Your task to perform on an android device: toggle sleep mode Image 0: 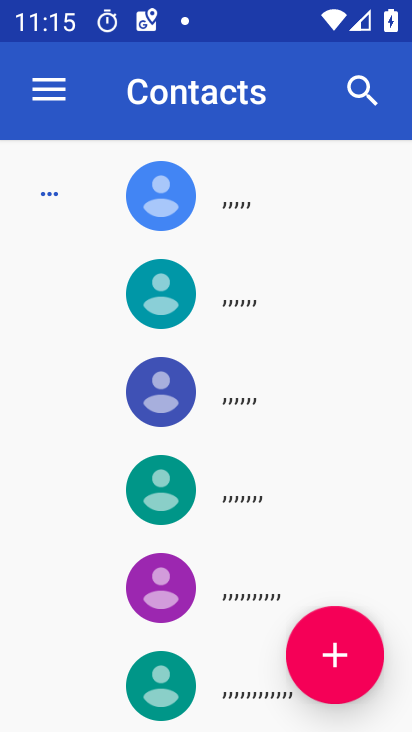
Step 0: press home button
Your task to perform on an android device: toggle sleep mode Image 1: 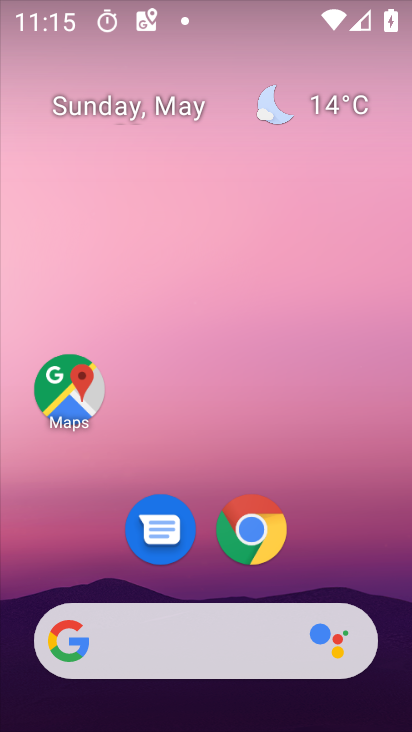
Step 1: drag from (171, 619) to (172, 57)
Your task to perform on an android device: toggle sleep mode Image 2: 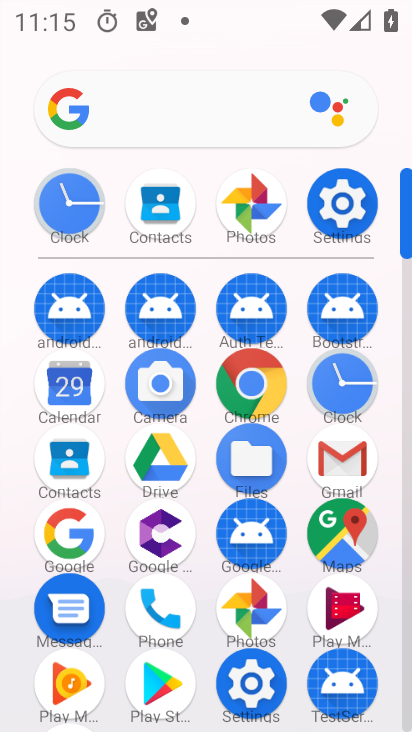
Step 2: click (336, 223)
Your task to perform on an android device: toggle sleep mode Image 3: 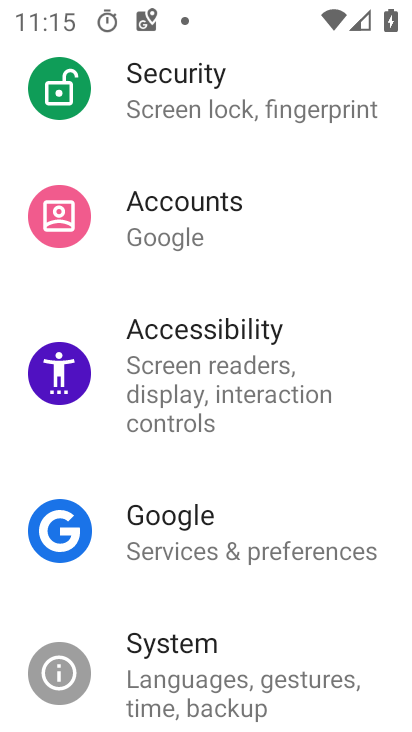
Step 3: drag from (231, 248) to (81, 681)
Your task to perform on an android device: toggle sleep mode Image 4: 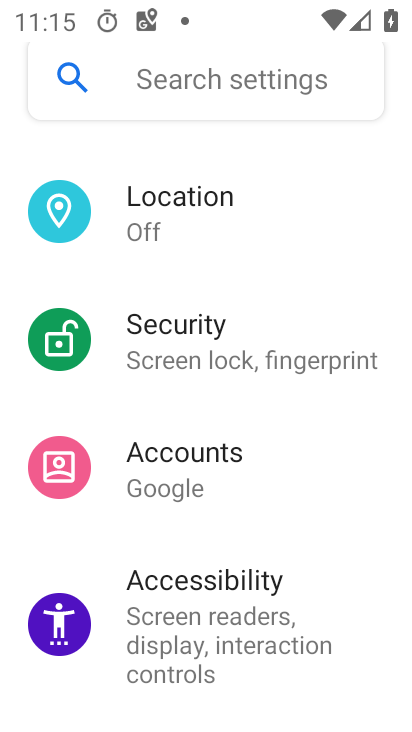
Step 4: drag from (228, 251) to (72, 704)
Your task to perform on an android device: toggle sleep mode Image 5: 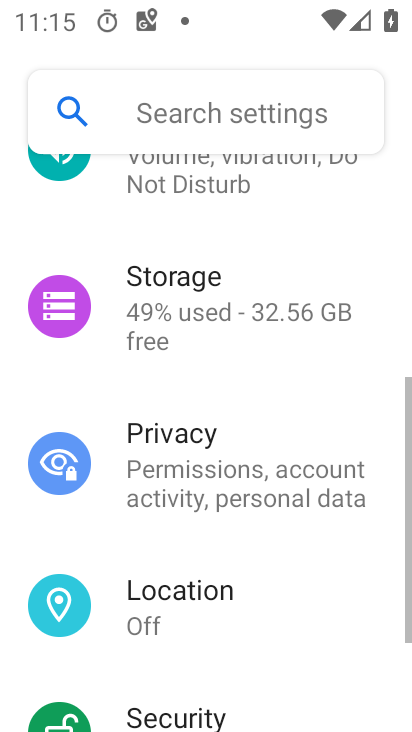
Step 5: drag from (258, 230) to (238, 709)
Your task to perform on an android device: toggle sleep mode Image 6: 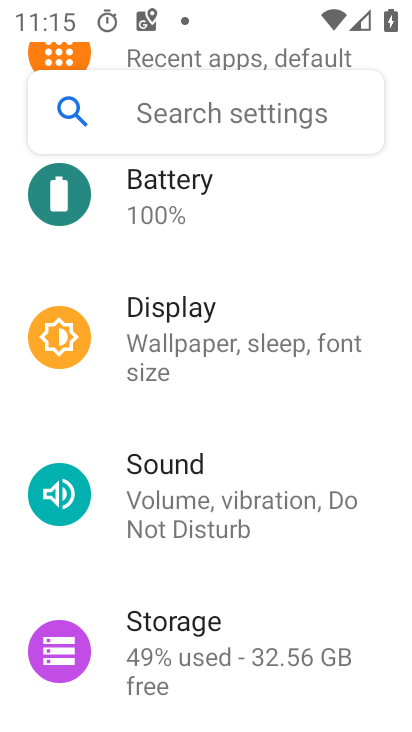
Step 6: click (209, 344)
Your task to perform on an android device: toggle sleep mode Image 7: 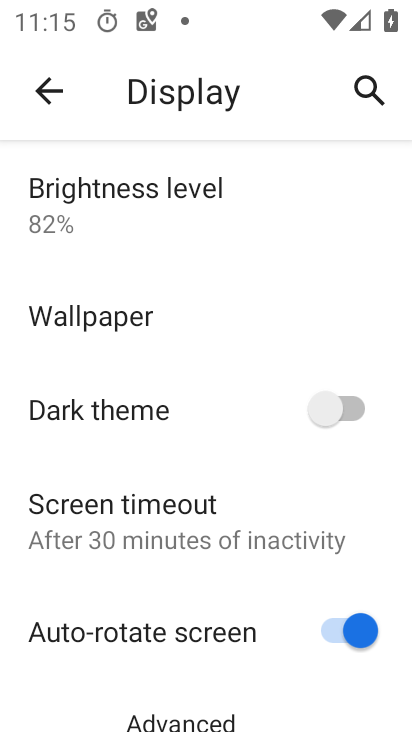
Step 7: drag from (226, 621) to (248, 117)
Your task to perform on an android device: toggle sleep mode Image 8: 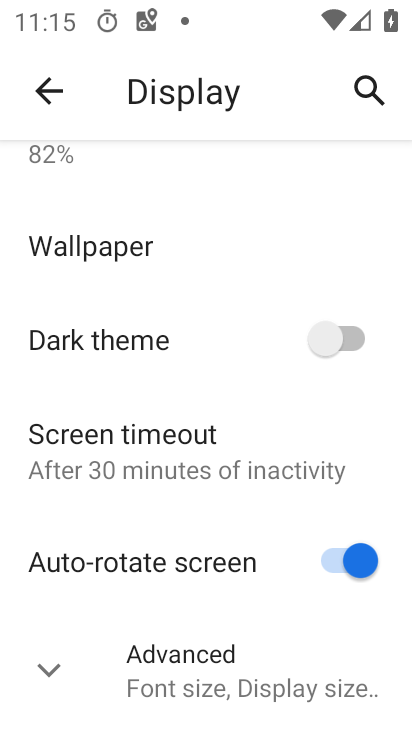
Step 8: click (234, 677)
Your task to perform on an android device: toggle sleep mode Image 9: 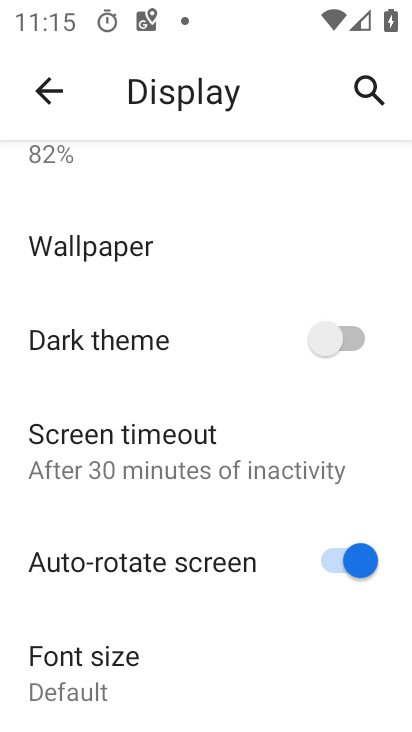
Step 9: task complete